Your task to perform on an android device: toggle location history Image 0: 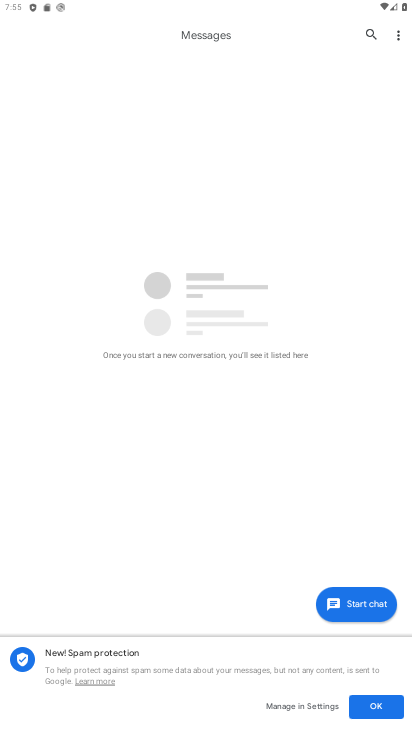
Step 0: press home button
Your task to perform on an android device: toggle location history Image 1: 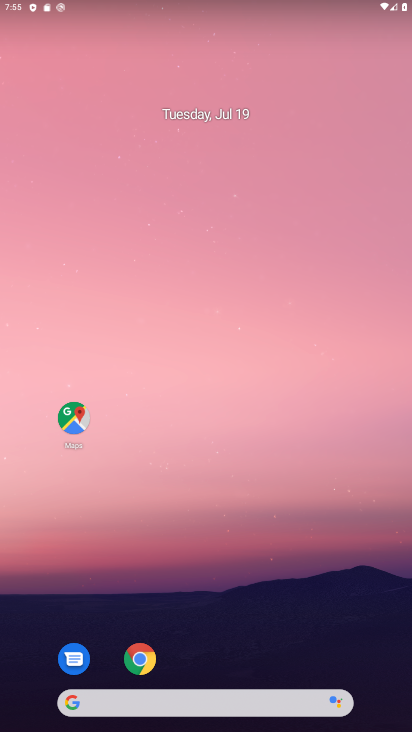
Step 1: drag from (225, 647) to (342, 88)
Your task to perform on an android device: toggle location history Image 2: 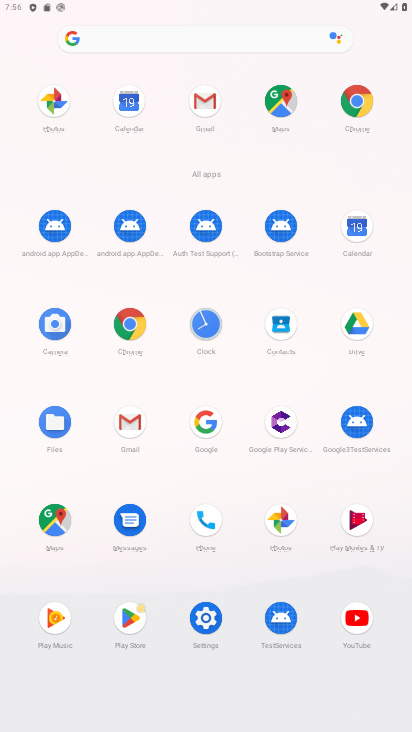
Step 2: click (275, 99)
Your task to perform on an android device: toggle location history Image 3: 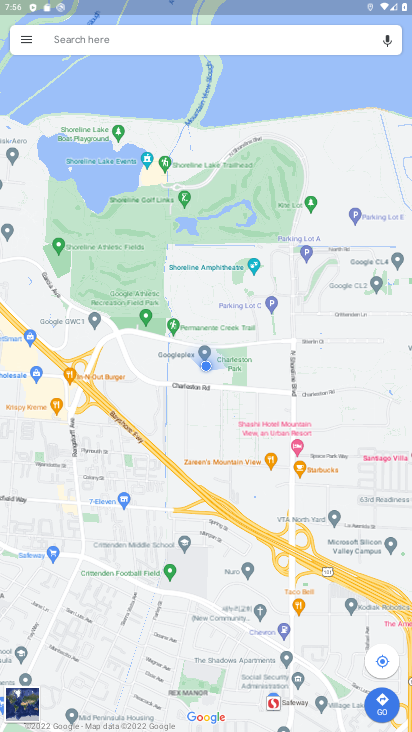
Step 3: click (24, 40)
Your task to perform on an android device: toggle location history Image 4: 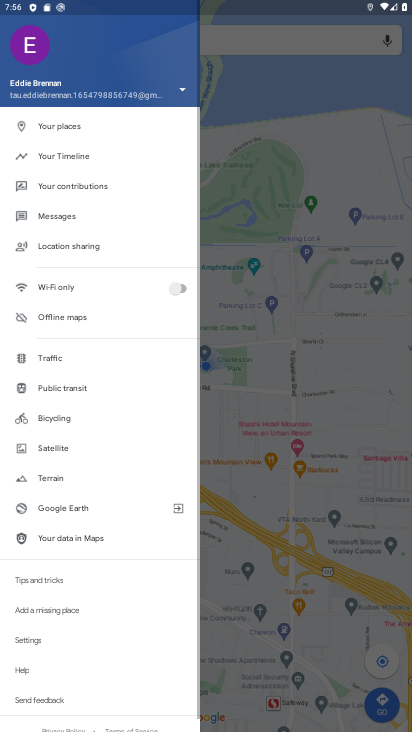
Step 4: click (59, 149)
Your task to perform on an android device: toggle location history Image 5: 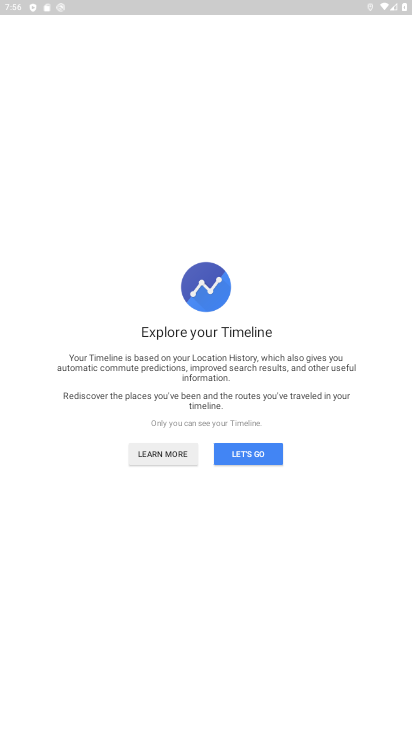
Step 5: click (232, 450)
Your task to perform on an android device: toggle location history Image 6: 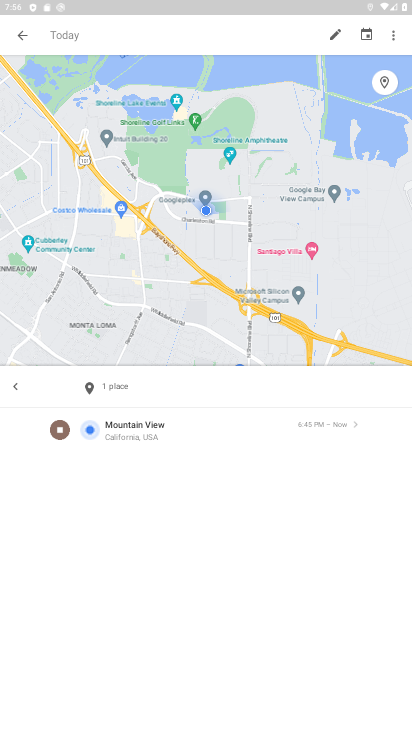
Step 6: click (392, 39)
Your task to perform on an android device: toggle location history Image 7: 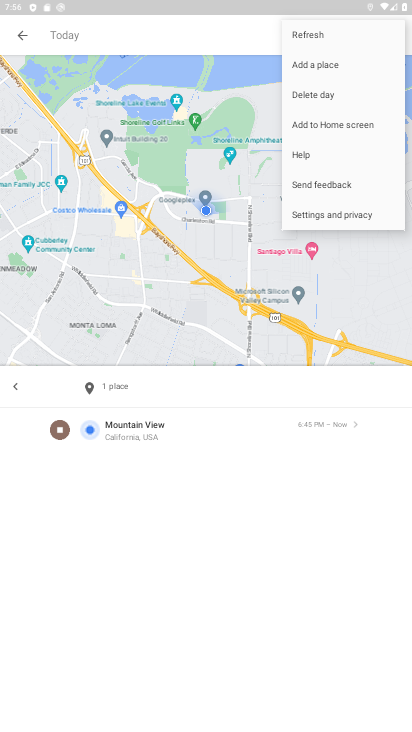
Step 7: click (325, 216)
Your task to perform on an android device: toggle location history Image 8: 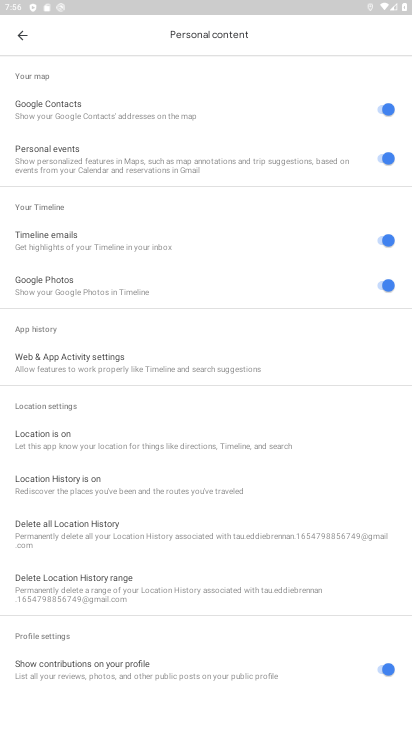
Step 8: drag from (227, 534) to (260, 197)
Your task to perform on an android device: toggle location history Image 9: 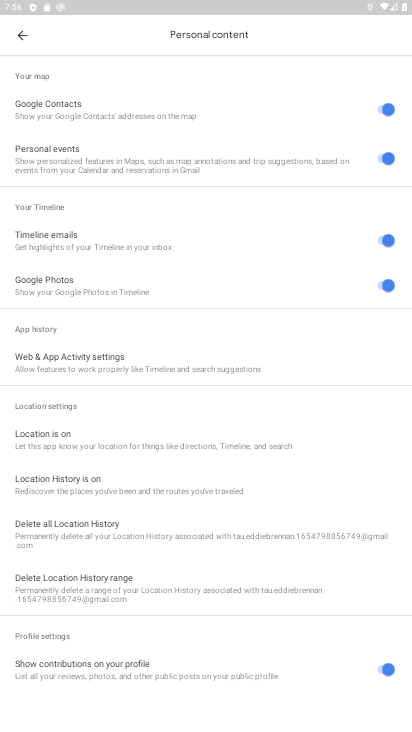
Step 9: click (62, 484)
Your task to perform on an android device: toggle location history Image 10: 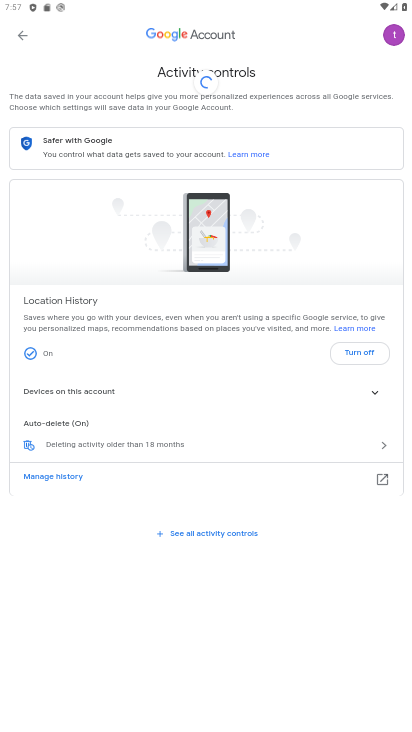
Step 10: click (358, 354)
Your task to perform on an android device: toggle location history Image 11: 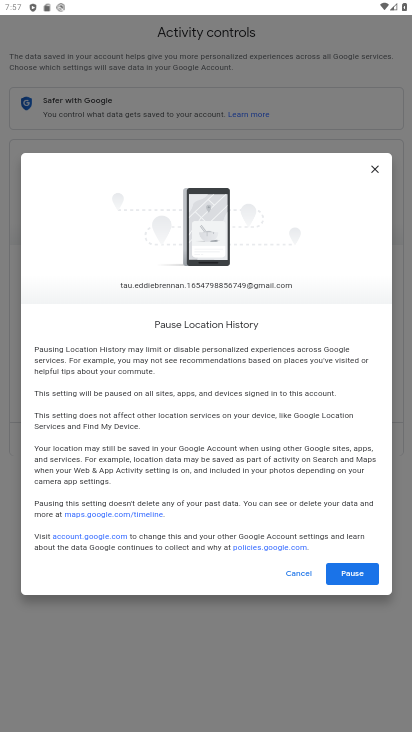
Step 11: click (343, 569)
Your task to perform on an android device: toggle location history Image 12: 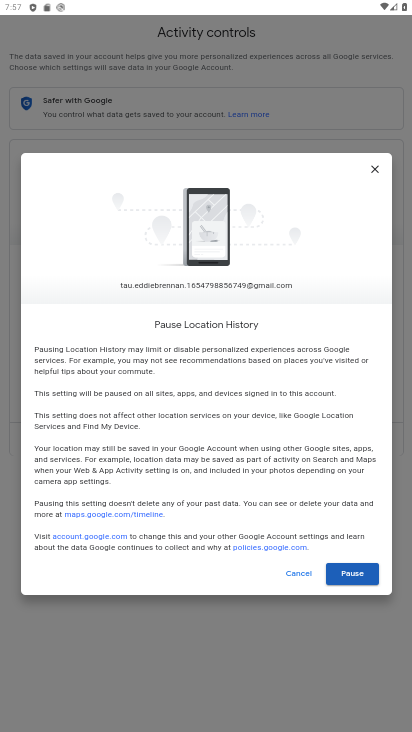
Step 12: click (343, 569)
Your task to perform on an android device: toggle location history Image 13: 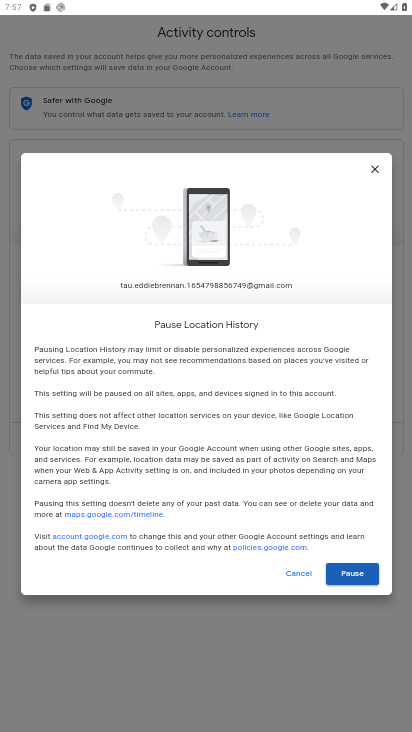
Step 13: click (358, 577)
Your task to perform on an android device: toggle location history Image 14: 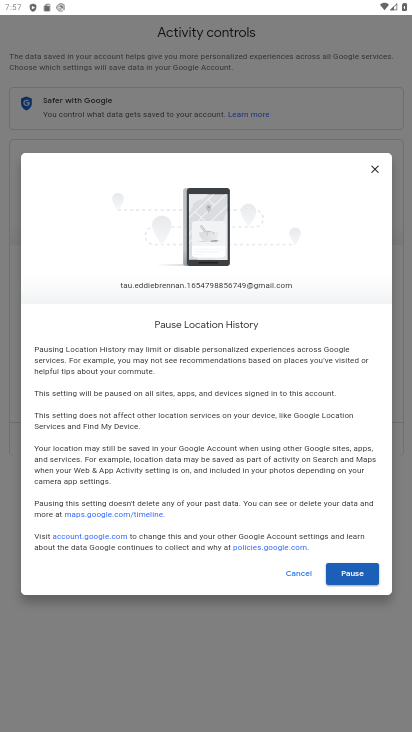
Step 14: click (358, 577)
Your task to perform on an android device: toggle location history Image 15: 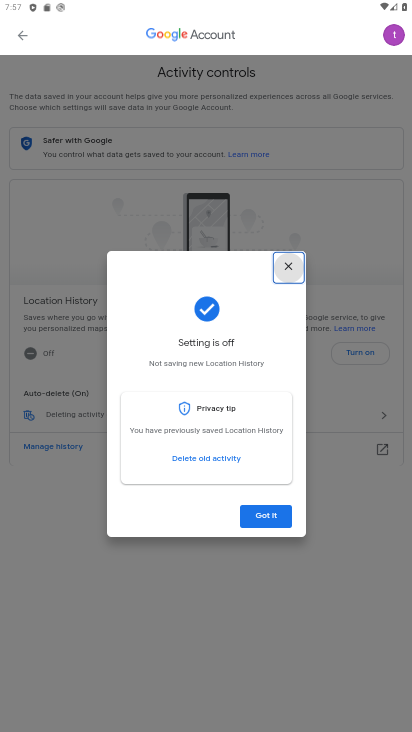
Step 15: click (257, 514)
Your task to perform on an android device: toggle location history Image 16: 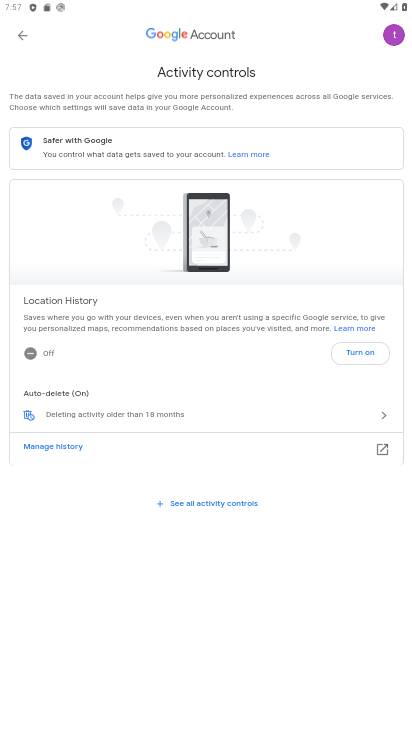
Step 16: task complete